Your task to perform on an android device: Search for pizza restaurants on Maps Image 0: 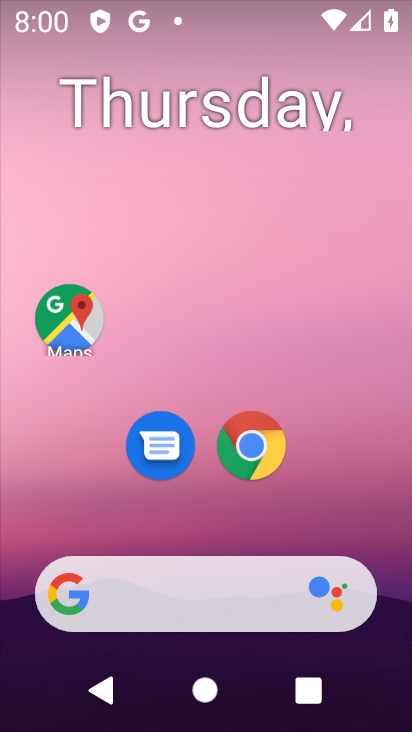
Step 0: drag from (356, 511) to (311, 154)
Your task to perform on an android device: Search for pizza restaurants on Maps Image 1: 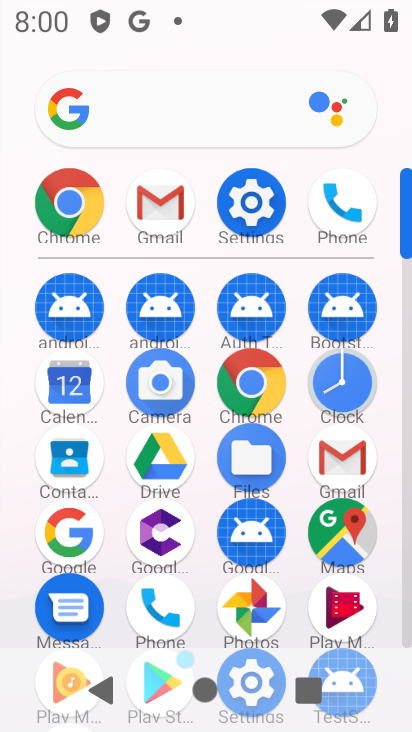
Step 1: click (342, 551)
Your task to perform on an android device: Search for pizza restaurants on Maps Image 2: 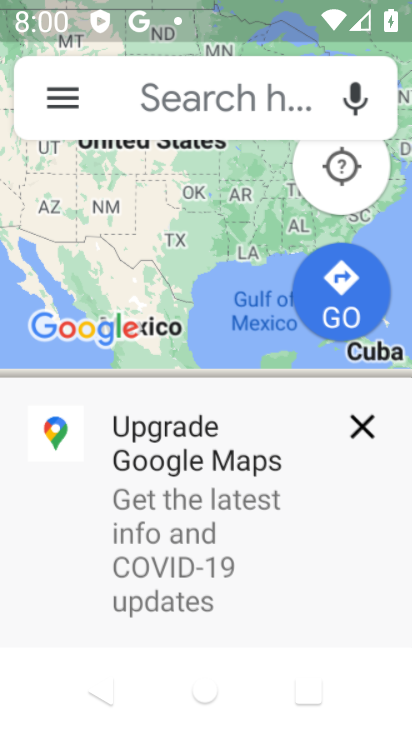
Step 2: click (237, 117)
Your task to perform on an android device: Search for pizza restaurants on Maps Image 3: 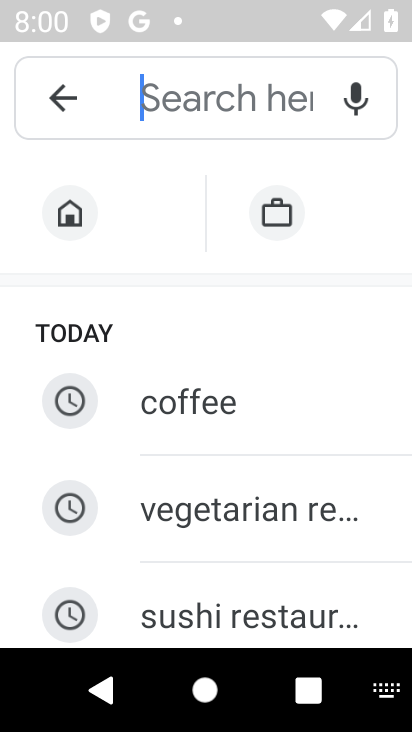
Step 3: type "pizza restaurants"
Your task to perform on an android device: Search for pizza restaurants on Maps Image 4: 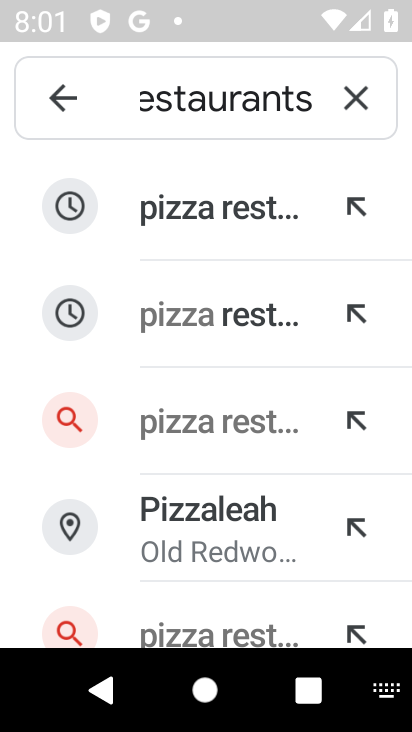
Step 4: click (183, 203)
Your task to perform on an android device: Search for pizza restaurants on Maps Image 5: 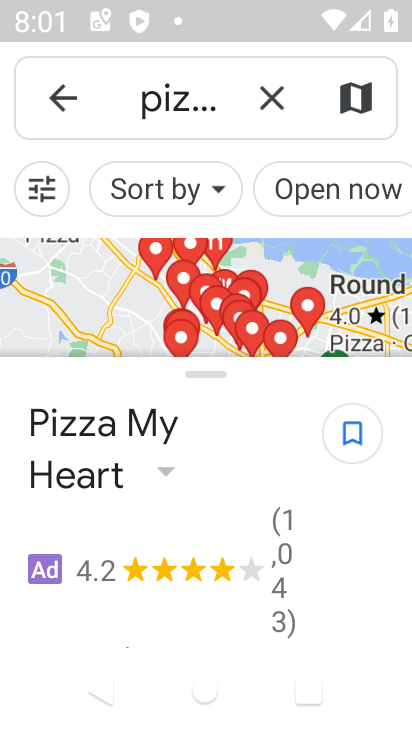
Step 5: task complete